Your task to perform on an android device: show emergency info Image 0: 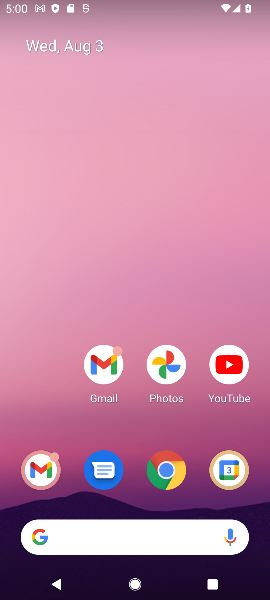
Step 0: drag from (129, 424) to (190, 17)
Your task to perform on an android device: show emergency info Image 1: 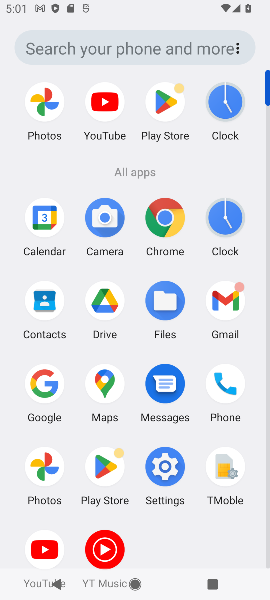
Step 1: click (160, 457)
Your task to perform on an android device: show emergency info Image 2: 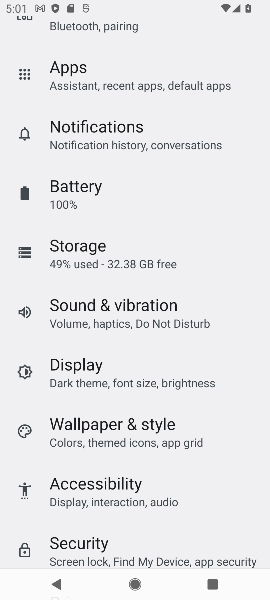
Step 2: drag from (184, 494) to (253, 219)
Your task to perform on an android device: show emergency info Image 3: 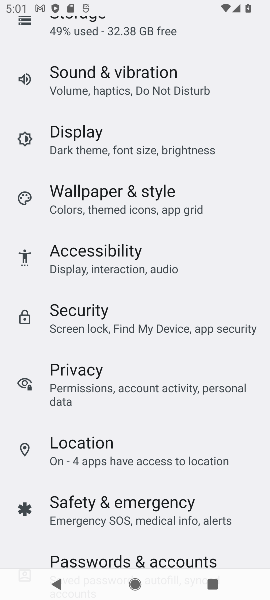
Step 3: drag from (171, 438) to (225, 224)
Your task to perform on an android device: show emergency info Image 4: 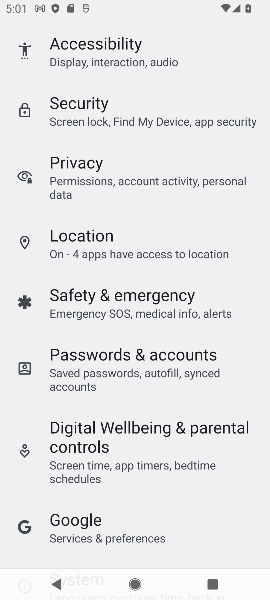
Step 4: click (146, 301)
Your task to perform on an android device: show emergency info Image 5: 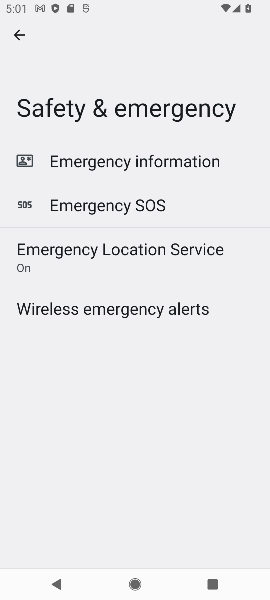
Step 5: click (181, 160)
Your task to perform on an android device: show emergency info Image 6: 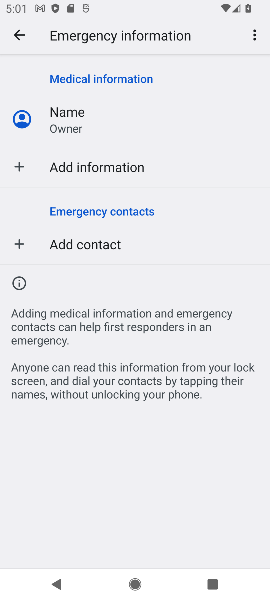
Step 6: task complete